Your task to perform on an android device: Open the calendar and show me this week's events? Image 0: 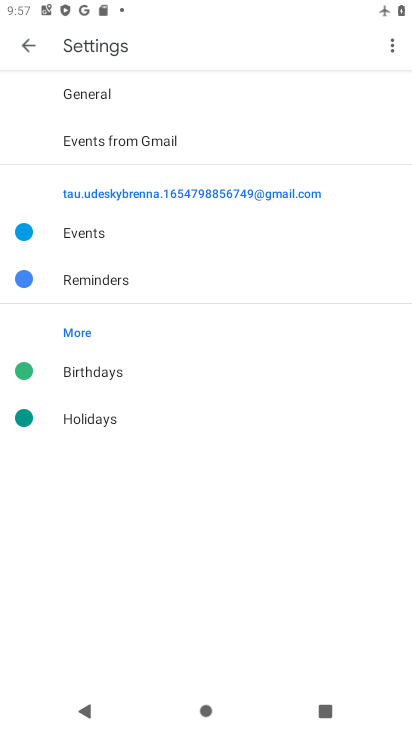
Step 0: press home button
Your task to perform on an android device: Open the calendar and show me this week's events? Image 1: 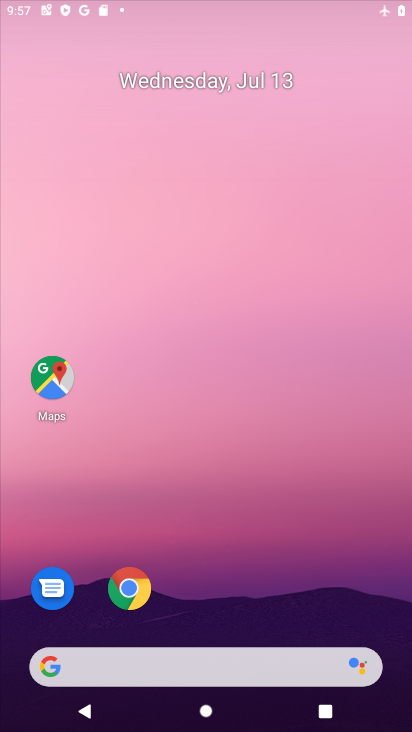
Step 1: drag from (240, 607) to (251, 160)
Your task to perform on an android device: Open the calendar and show me this week's events? Image 2: 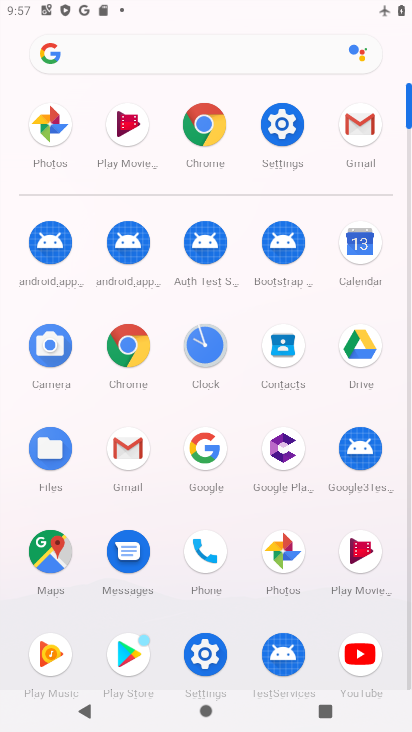
Step 2: click (368, 238)
Your task to perform on an android device: Open the calendar and show me this week's events? Image 3: 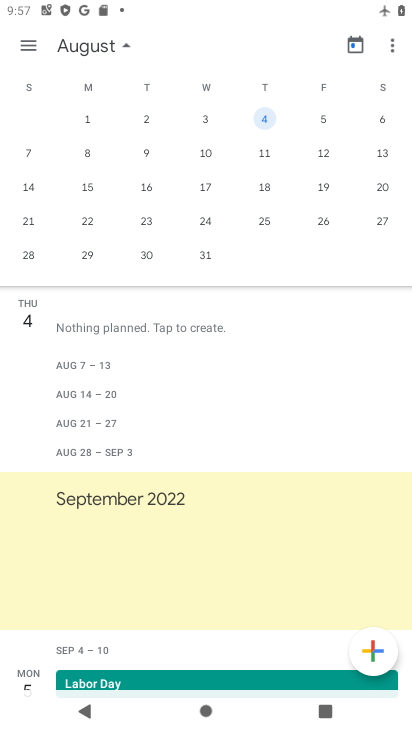
Step 3: drag from (37, 241) to (411, 209)
Your task to perform on an android device: Open the calendar and show me this week's events? Image 4: 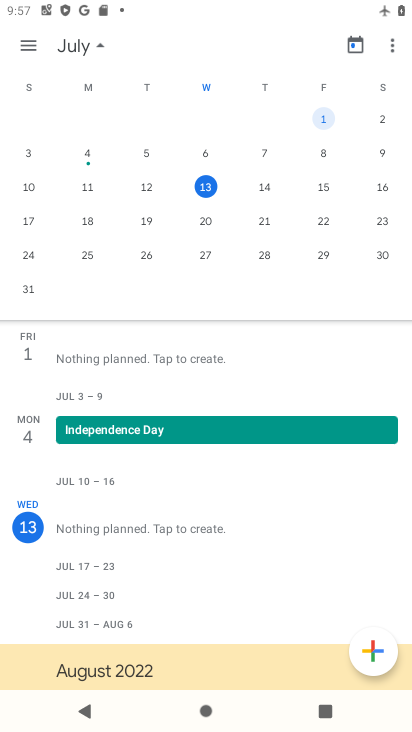
Step 4: click (326, 187)
Your task to perform on an android device: Open the calendar and show me this week's events? Image 5: 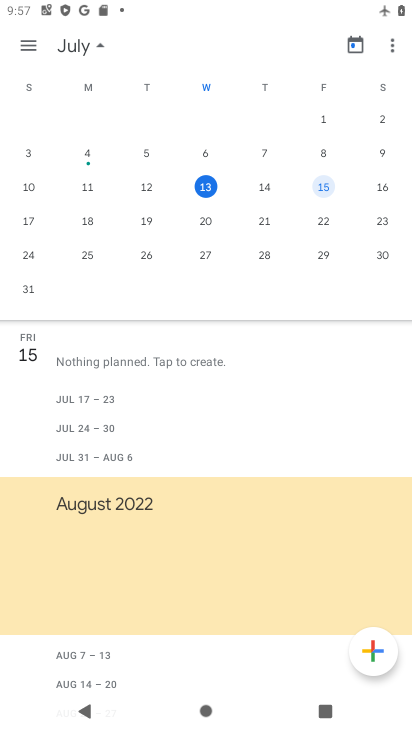
Step 5: task complete